Your task to perform on an android device: change the clock display to show seconds Image 0: 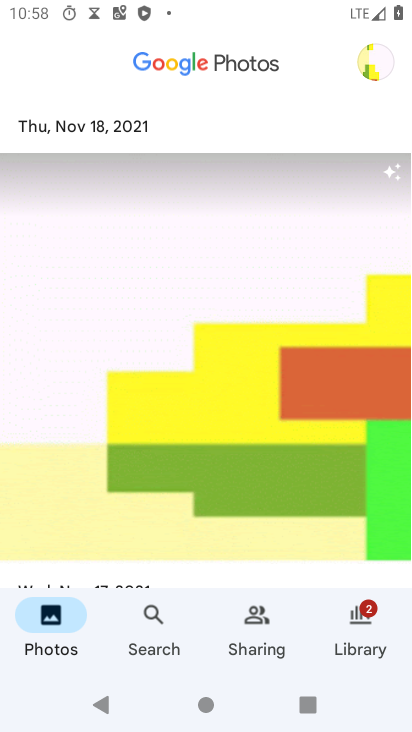
Step 0: press home button
Your task to perform on an android device: change the clock display to show seconds Image 1: 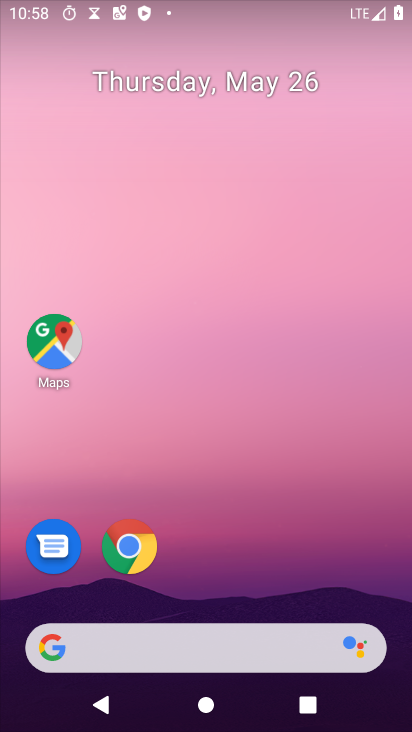
Step 1: drag from (349, 555) to (373, 96)
Your task to perform on an android device: change the clock display to show seconds Image 2: 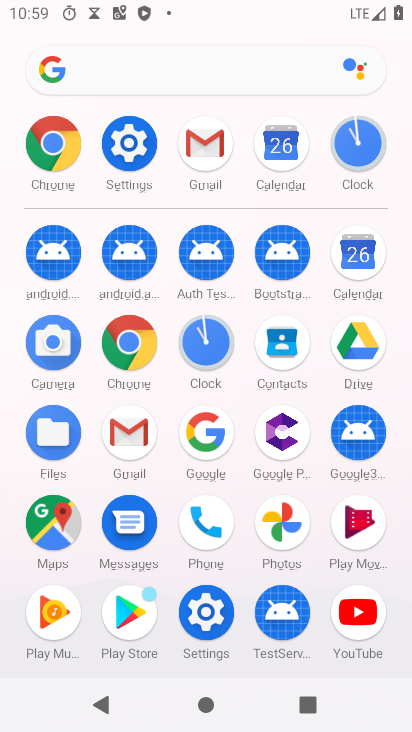
Step 2: click (205, 356)
Your task to perform on an android device: change the clock display to show seconds Image 3: 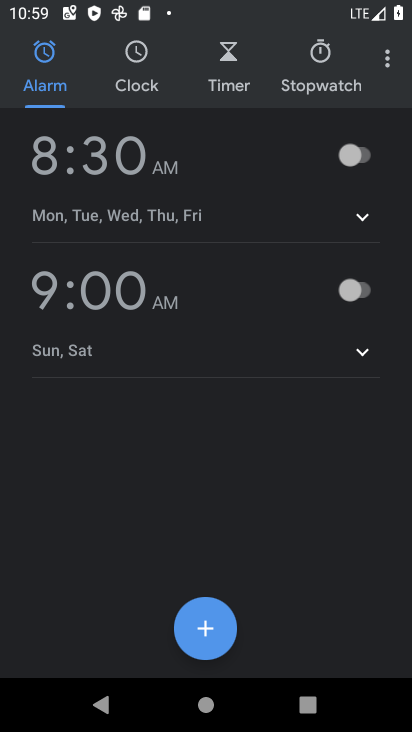
Step 3: click (381, 54)
Your task to perform on an android device: change the clock display to show seconds Image 4: 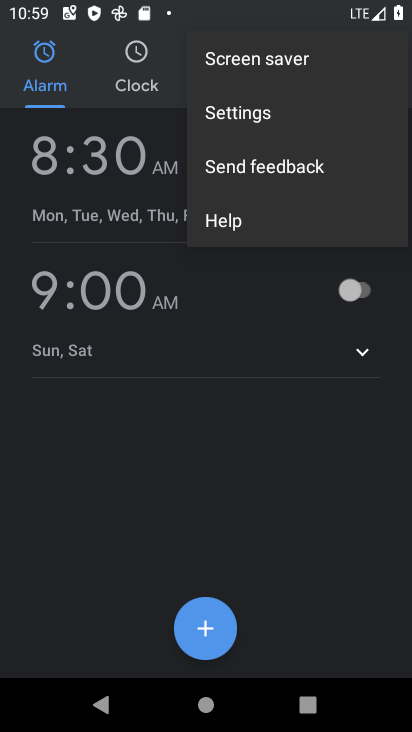
Step 4: click (286, 116)
Your task to perform on an android device: change the clock display to show seconds Image 5: 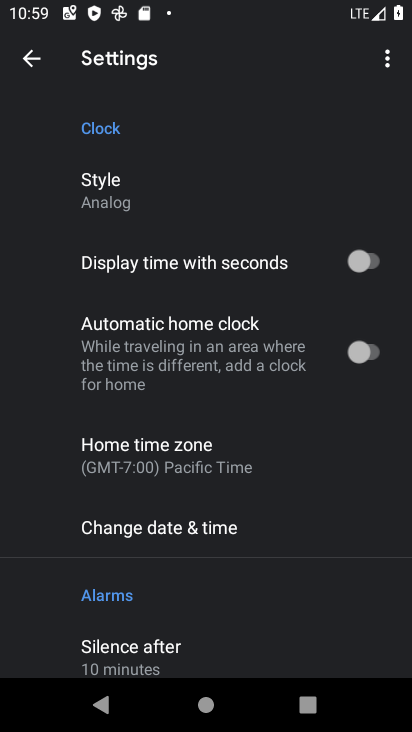
Step 5: task complete